Your task to perform on an android device: Search for vegetarian restaurants on Maps Image 0: 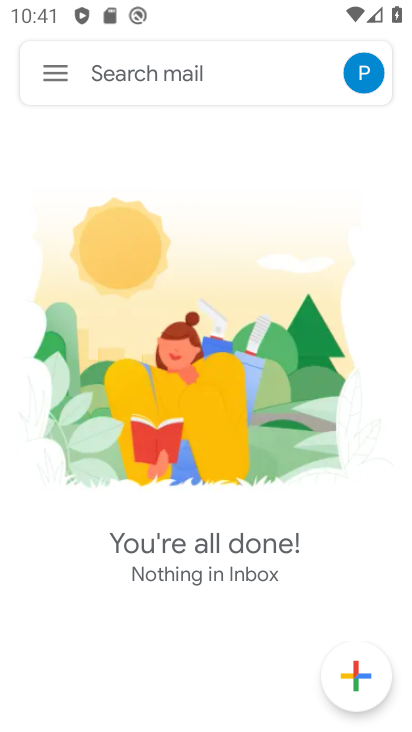
Step 0: press home button
Your task to perform on an android device: Search for vegetarian restaurants on Maps Image 1: 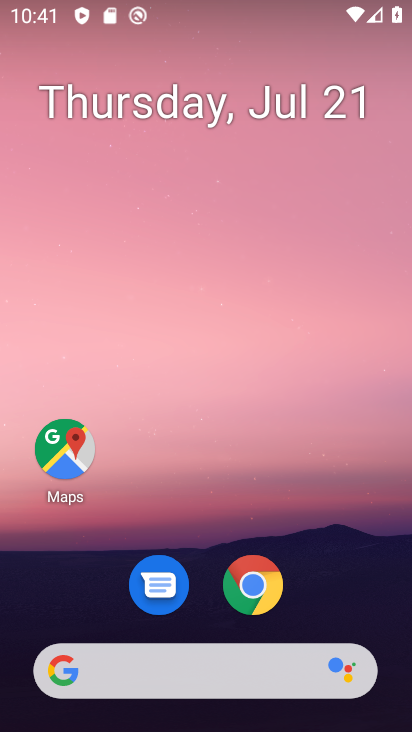
Step 1: click (55, 464)
Your task to perform on an android device: Search for vegetarian restaurants on Maps Image 2: 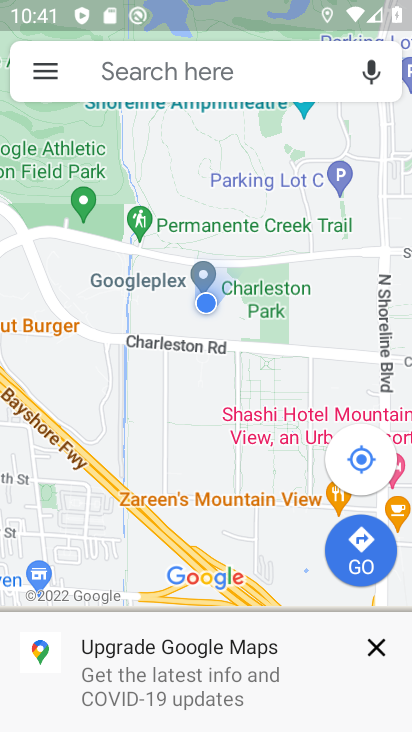
Step 2: click (191, 77)
Your task to perform on an android device: Search for vegetarian restaurants on Maps Image 3: 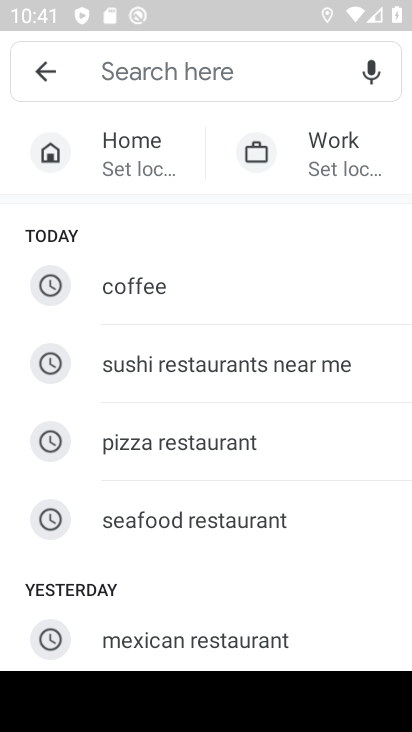
Step 3: drag from (256, 586) to (277, 221)
Your task to perform on an android device: Search for vegetarian restaurants on Maps Image 4: 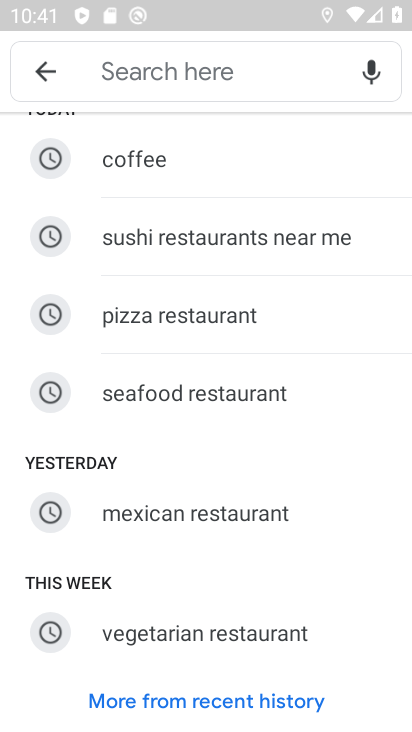
Step 4: click (181, 642)
Your task to perform on an android device: Search for vegetarian restaurants on Maps Image 5: 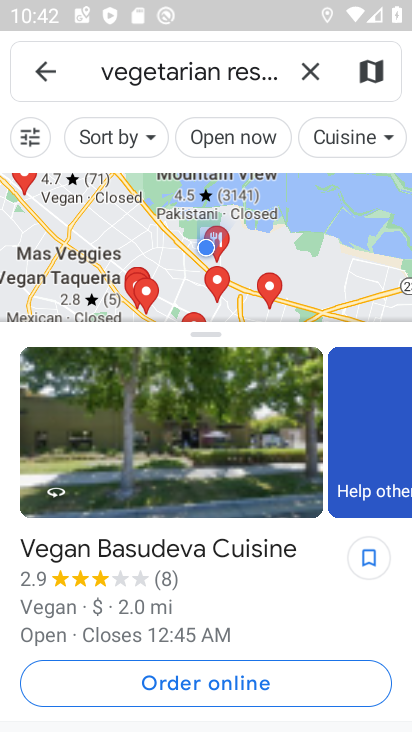
Step 5: task complete